Your task to perform on an android device: Open the Play Movies app and select the watchlist tab. Image 0: 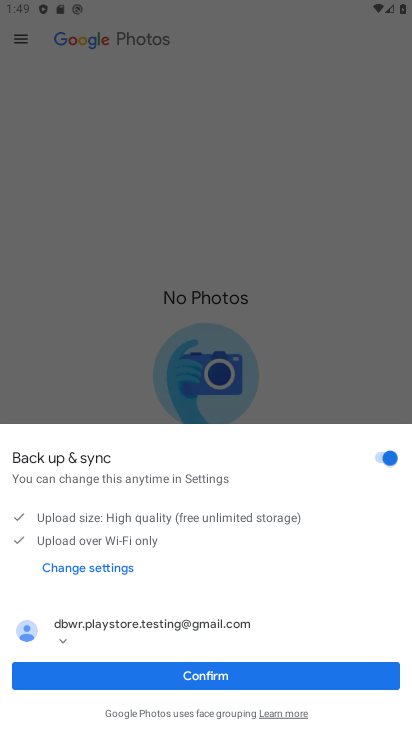
Step 0: press home button
Your task to perform on an android device: Open the Play Movies app and select the watchlist tab. Image 1: 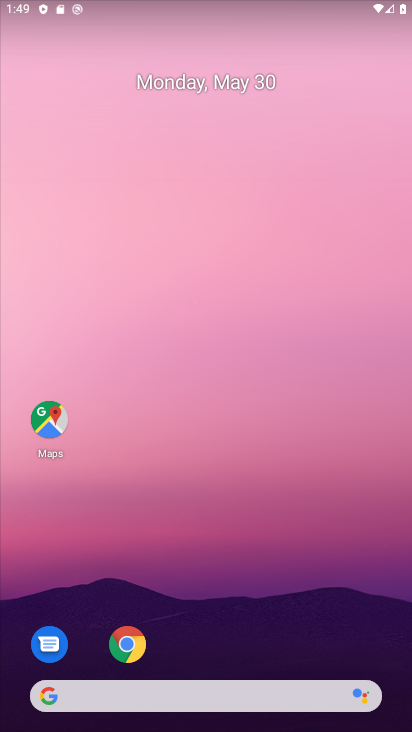
Step 1: drag from (324, 585) to (266, 202)
Your task to perform on an android device: Open the Play Movies app and select the watchlist tab. Image 2: 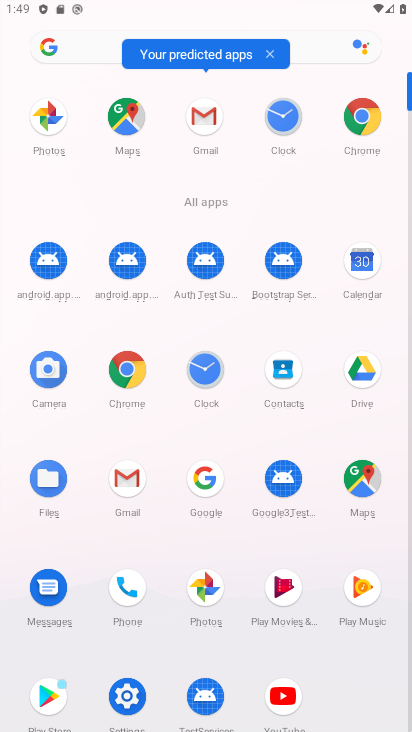
Step 2: click (284, 585)
Your task to perform on an android device: Open the Play Movies app and select the watchlist tab. Image 3: 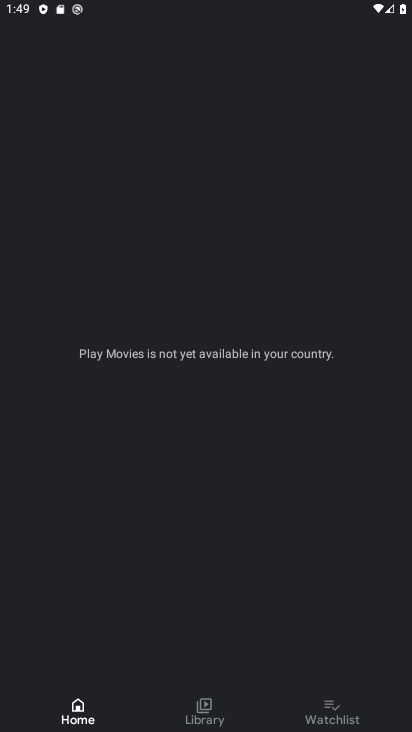
Step 3: click (335, 704)
Your task to perform on an android device: Open the Play Movies app and select the watchlist tab. Image 4: 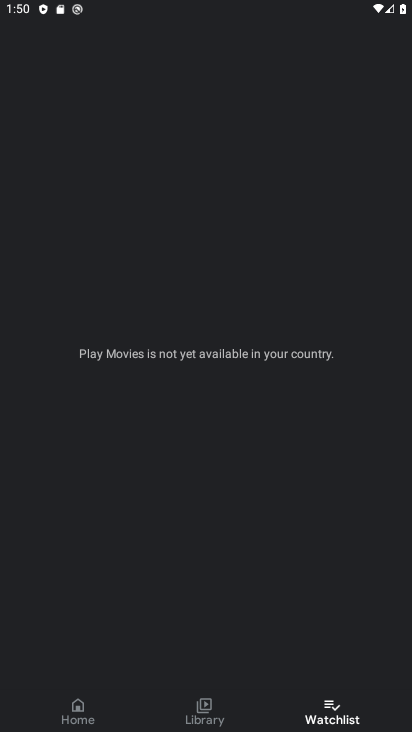
Step 4: task complete